Your task to perform on an android device: set the timer Image 0: 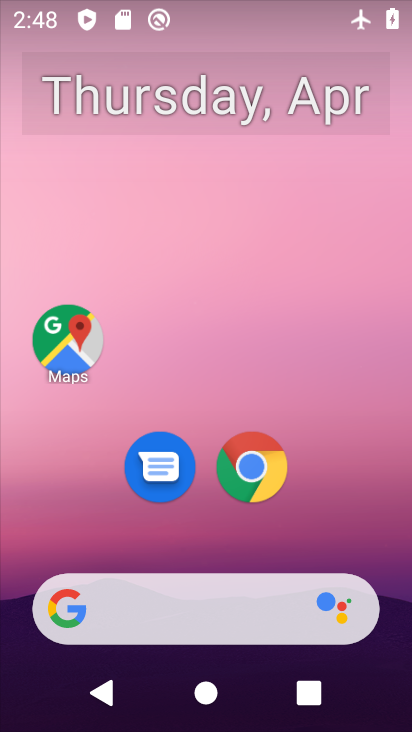
Step 0: drag from (339, 540) to (342, 135)
Your task to perform on an android device: set the timer Image 1: 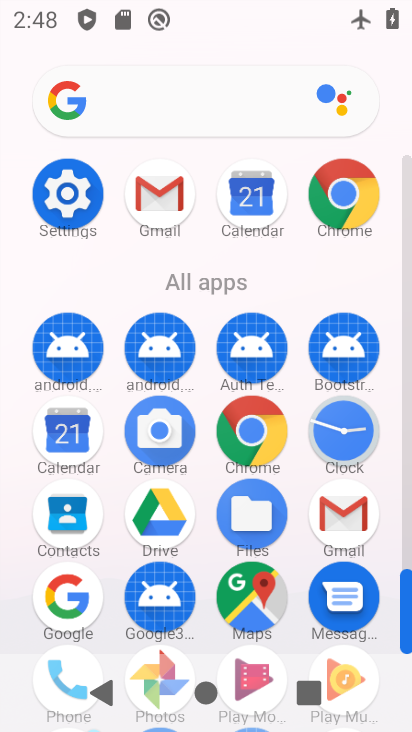
Step 1: click (337, 429)
Your task to perform on an android device: set the timer Image 2: 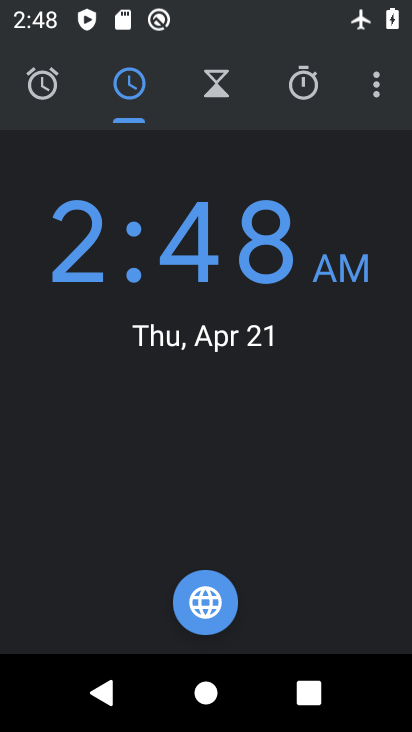
Step 2: click (215, 81)
Your task to perform on an android device: set the timer Image 3: 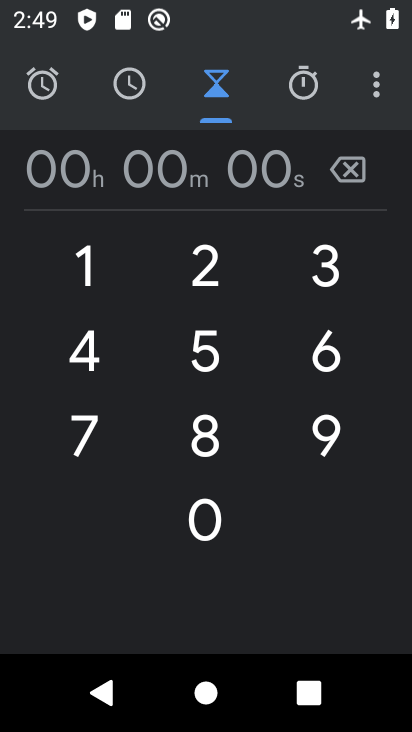
Step 3: click (94, 271)
Your task to perform on an android device: set the timer Image 4: 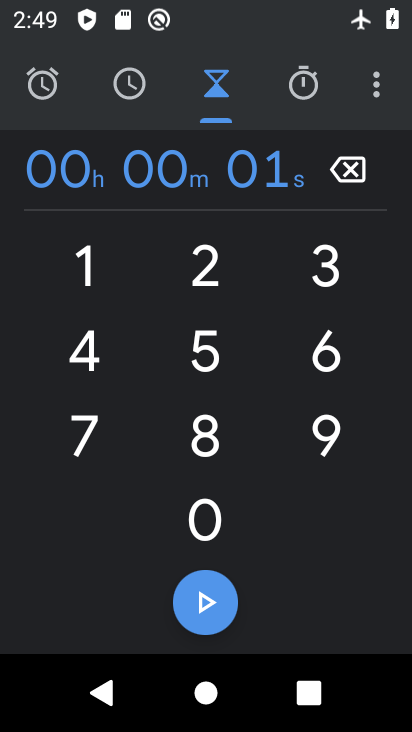
Step 4: click (94, 271)
Your task to perform on an android device: set the timer Image 5: 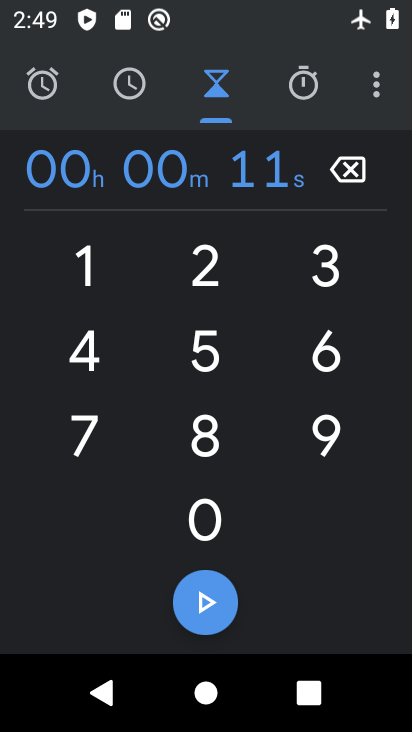
Step 5: task complete